Your task to perform on an android device: What is the news today? Image 0: 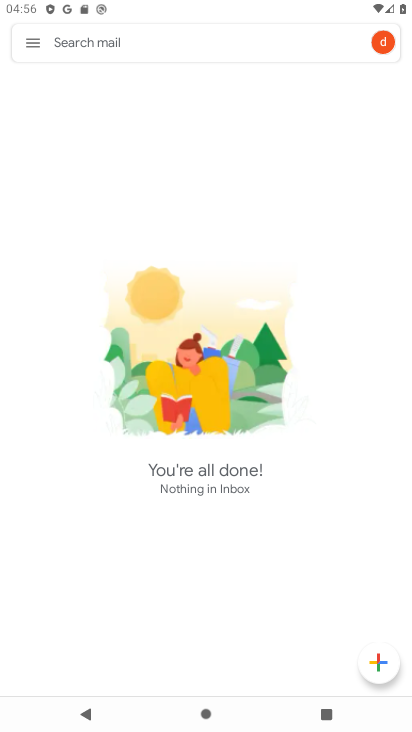
Step 0: drag from (212, 652) to (213, 329)
Your task to perform on an android device: What is the news today? Image 1: 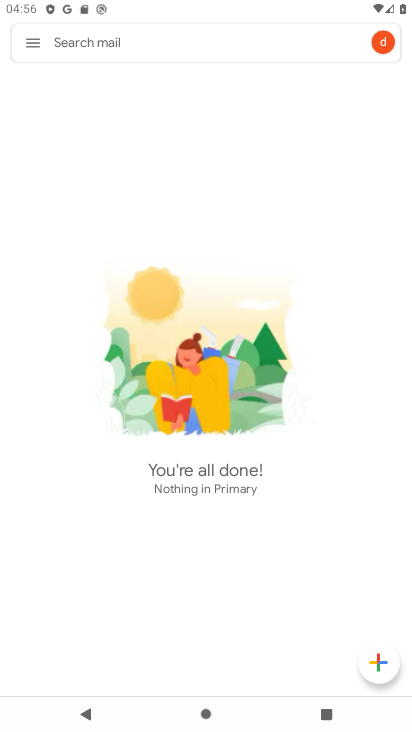
Step 1: press home button
Your task to perform on an android device: What is the news today? Image 2: 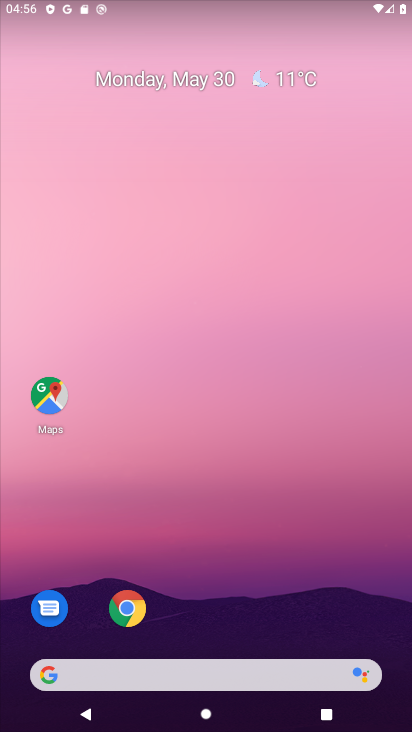
Step 2: drag from (202, 650) to (212, 274)
Your task to perform on an android device: What is the news today? Image 3: 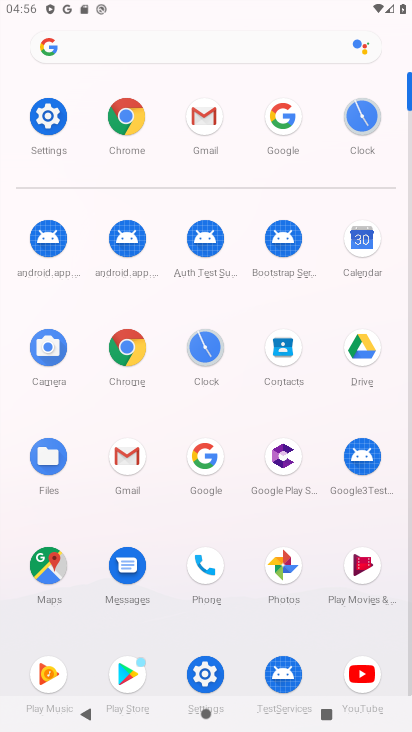
Step 3: click (209, 457)
Your task to perform on an android device: What is the news today? Image 4: 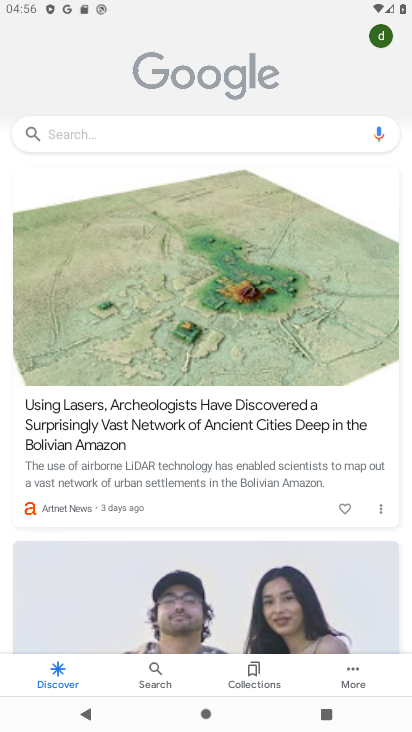
Step 4: click (189, 137)
Your task to perform on an android device: What is the news today? Image 5: 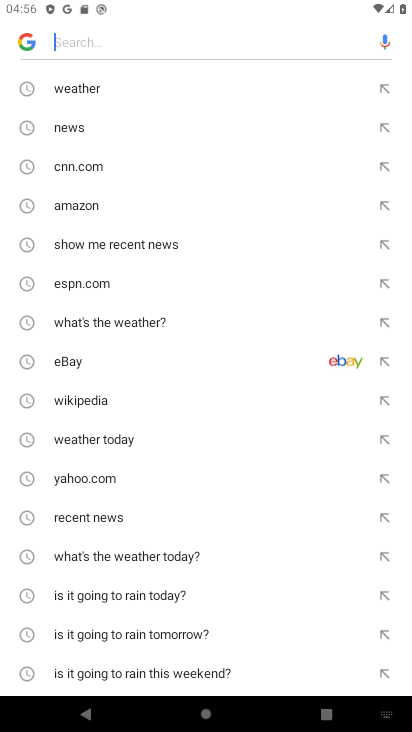
Step 5: drag from (108, 585) to (124, 187)
Your task to perform on an android device: What is the news today? Image 6: 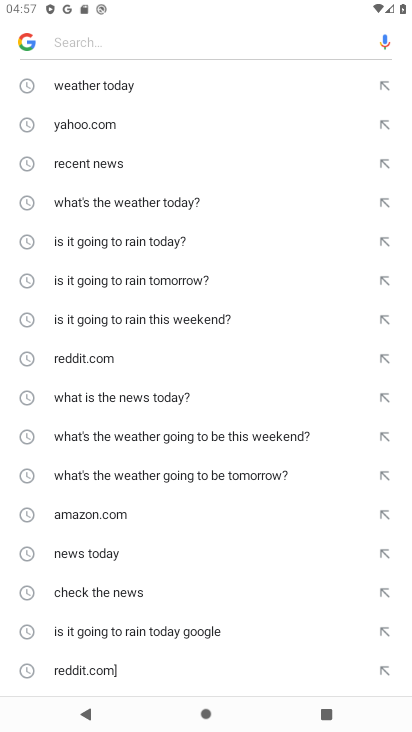
Step 6: drag from (104, 585) to (104, 179)
Your task to perform on an android device: What is the news today? Image 7: 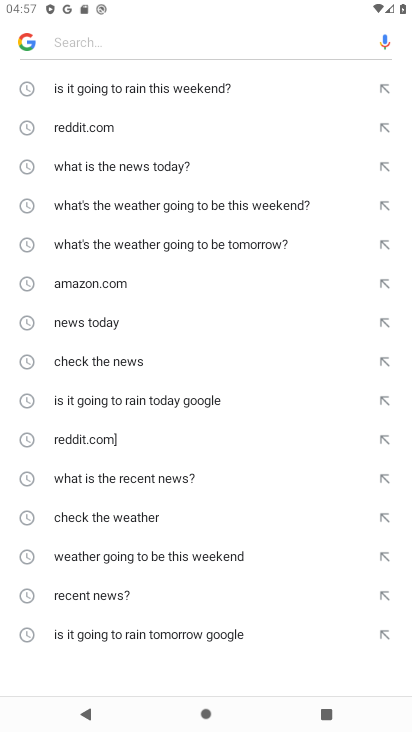
Step 7: click (84, 477)
Your task to perform on an android device: What is the news today? Image 8: 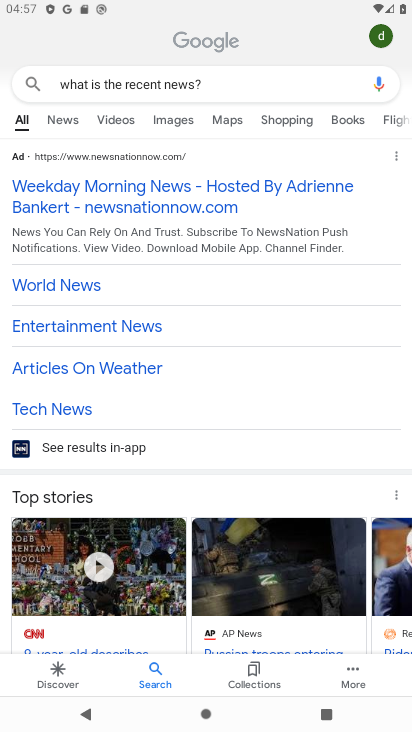
Step 8: task complete